Your task to perform on an android device: turn on javascript in the chrome app Image 0: 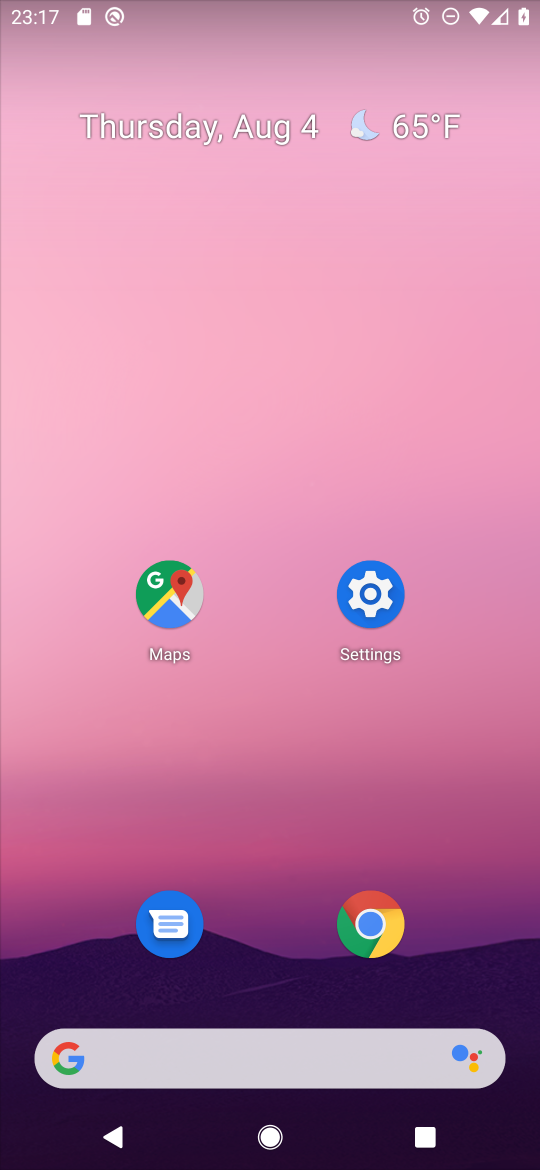
Step 0: press home button
Your task to perform on an android device: turn on javascript in the chrome app Image 1: 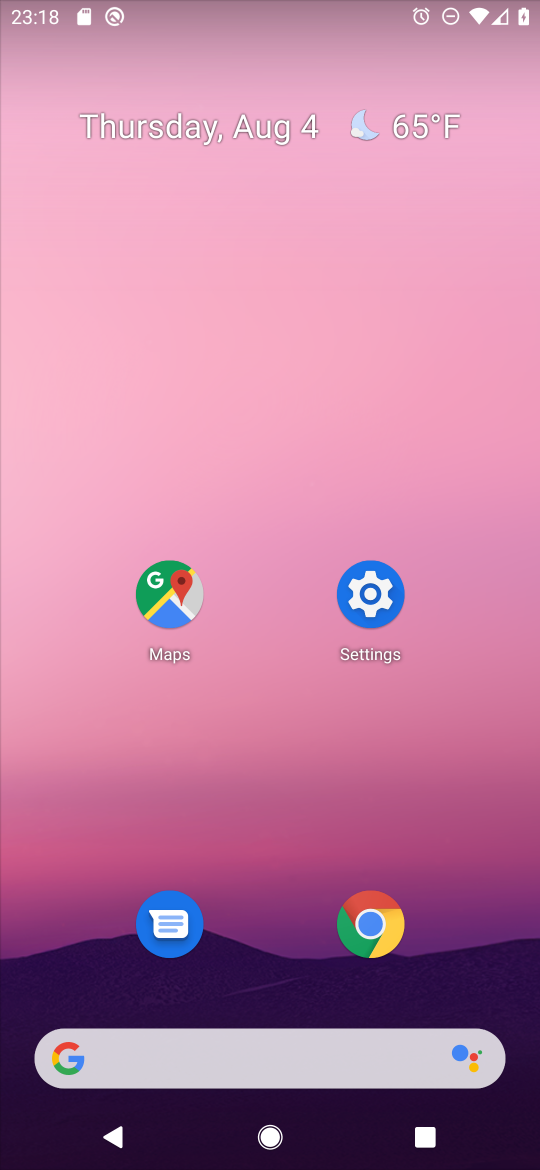
Step 1: click (383, 919)
Your task to perform on an android device: turn on javascript in the chrome app Image 2: 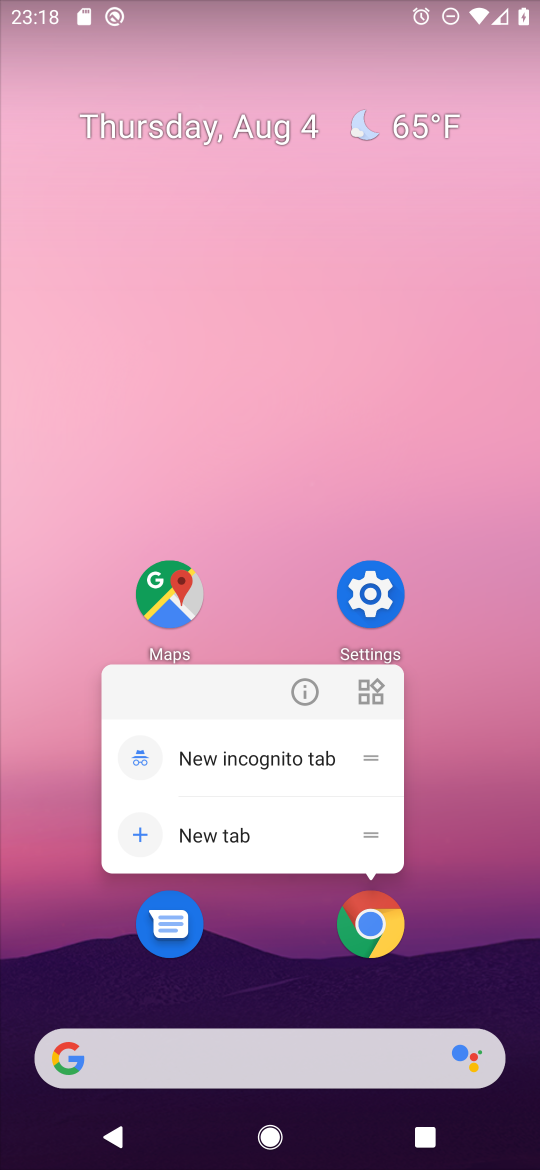
Step 2: click (370, 923)
Your task to perform on an android device: turn on javascript in the chrome app Image 3: 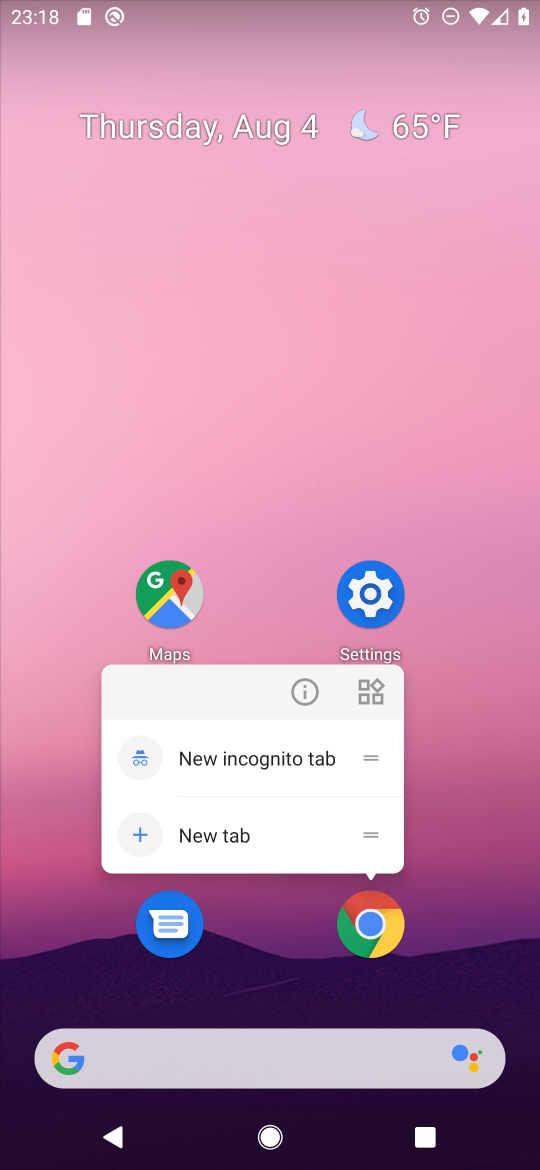
Step 3: click (371, 926)
Your task to perform on an android device: turn on javascript in the chrome app Image 4: 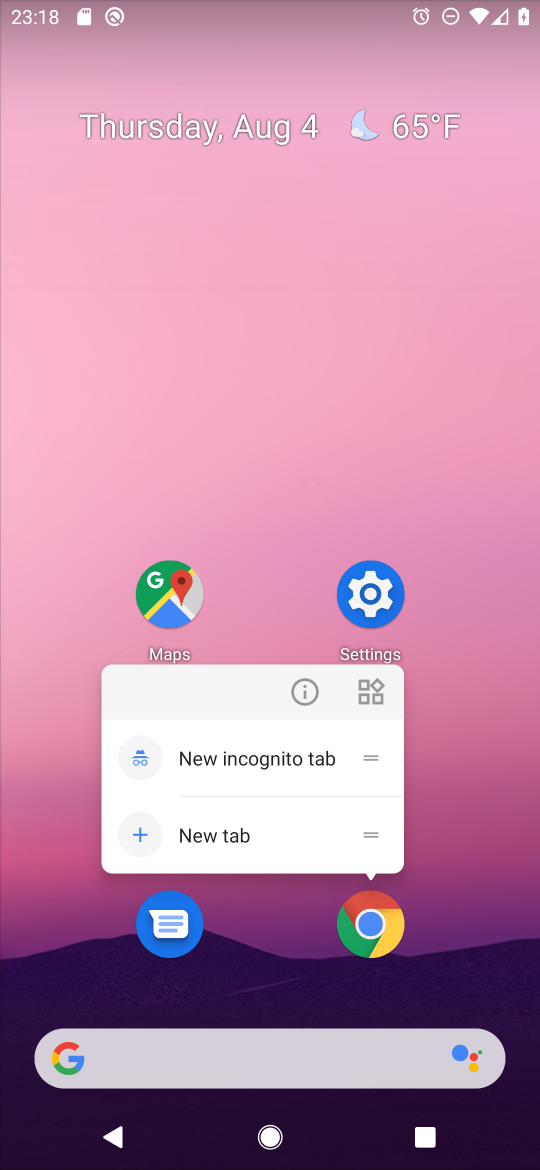
Step 4: click (371, 924)
Your task to perform on an android device: turn on javascript in the chrome app Image 5: 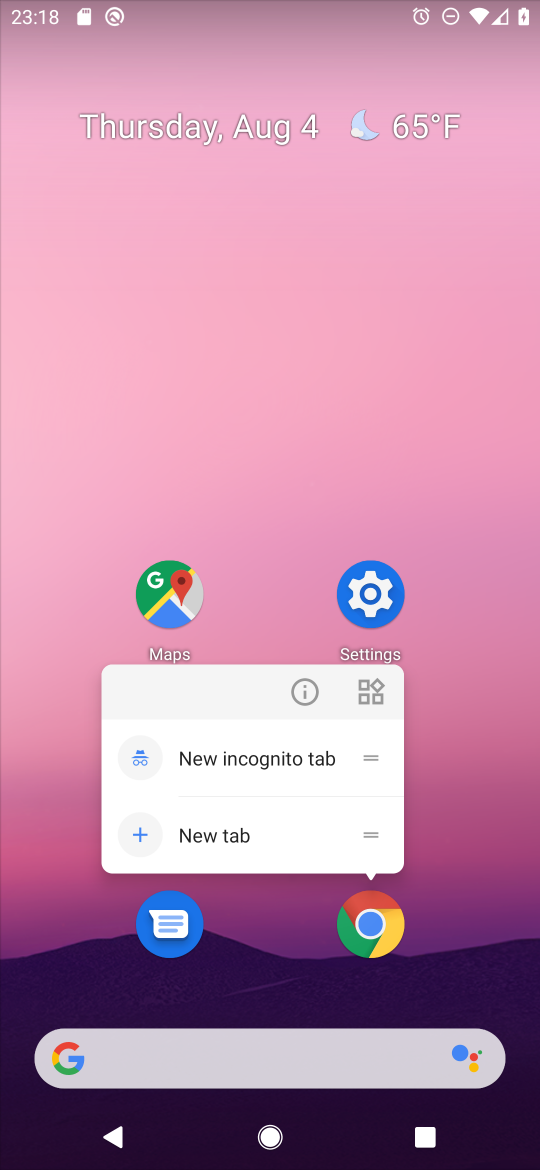
Step 5: click (371, 930)
Your task to perform on an android device: turn on javascript in the chrome app Image 6: 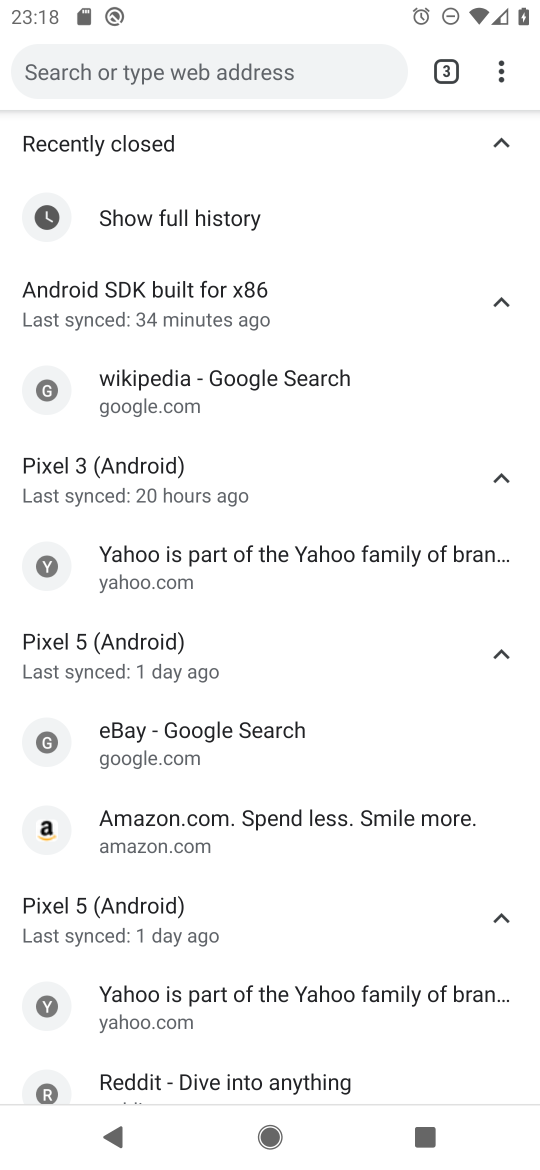
Step 6: drag from (498, 69) to (264, 591)
Your task to perform on an android device: turn on javascript in the chrome app Image 7: 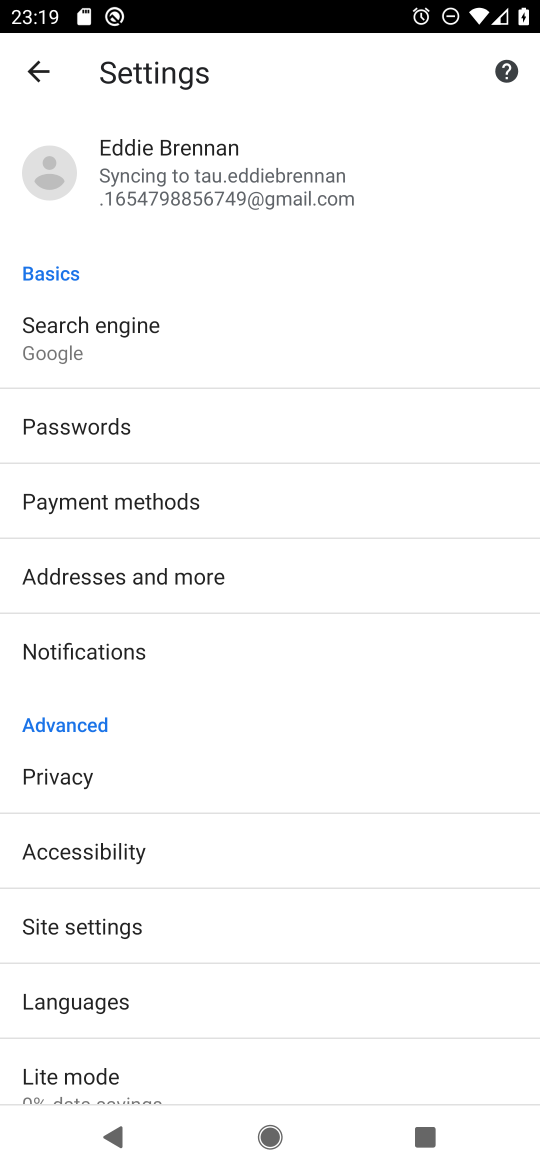
Step 7: click (81, 927)
Your task to perform on an android device: turn on javascript in the chrome app Image 8: 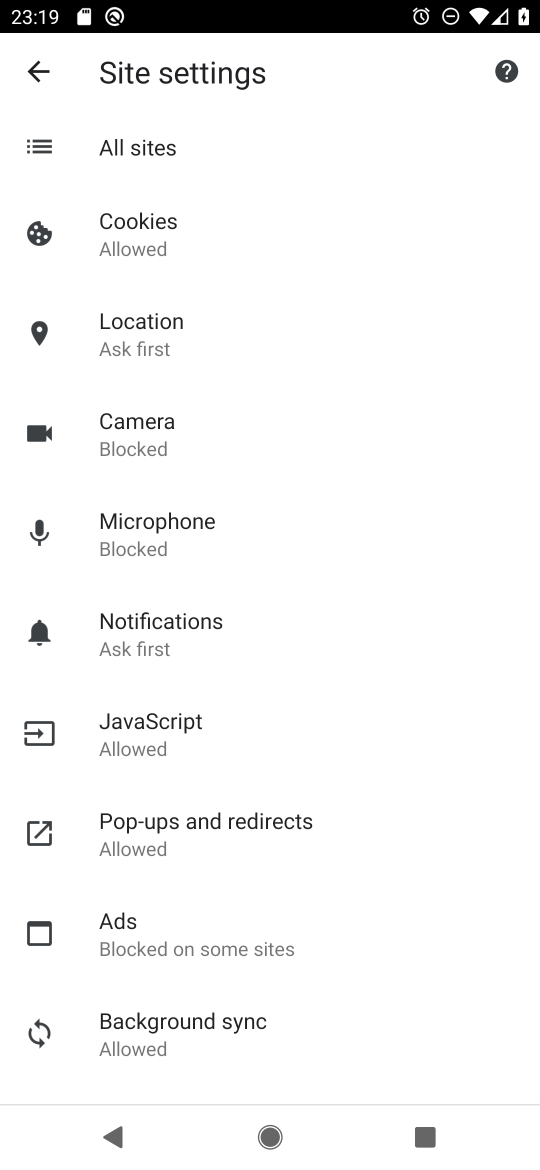
Step 8: click (149, 722)
Your task to perform on an android device: turn on javascript in the chrome app Image 9: 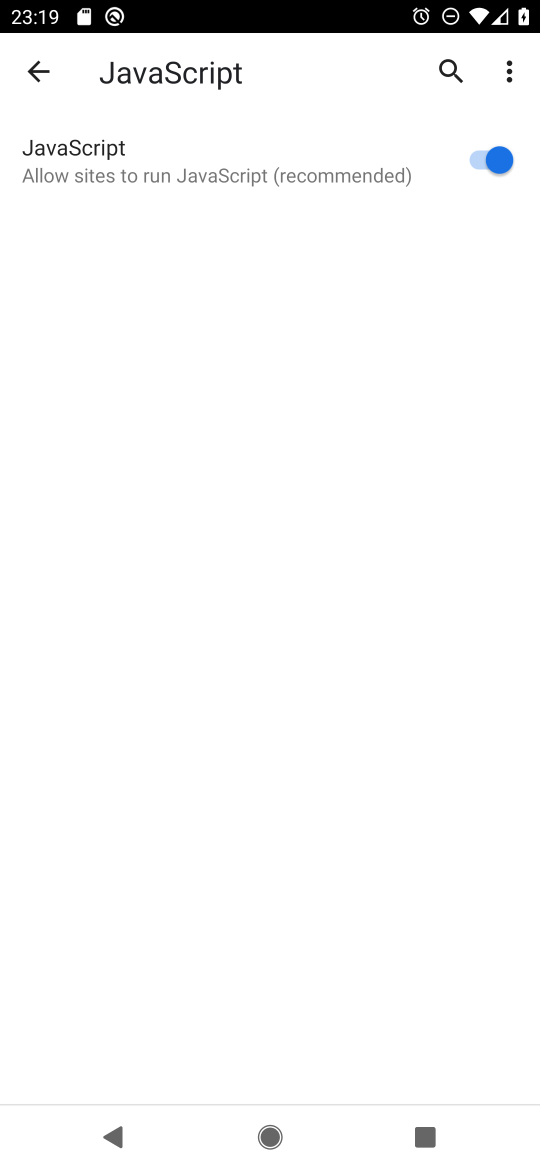
Step 9: task complete